Your task to perform on an android device: Go to Yahoo.com Image 0: 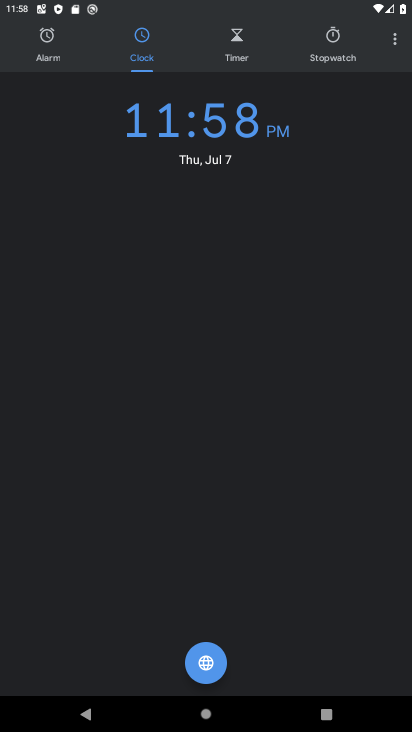
Step 0: press home button
Your task to perform on an android device: Go to Yahoo.com Image 1: 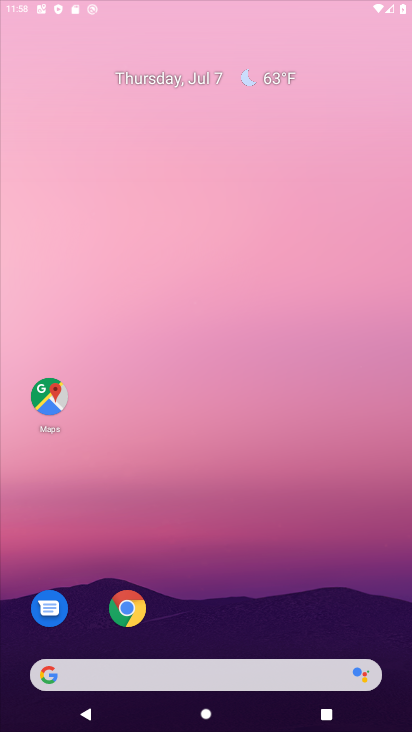
Step 1: press home button
Your task to perform on an android device: Go to Yahoo.com Image 2: 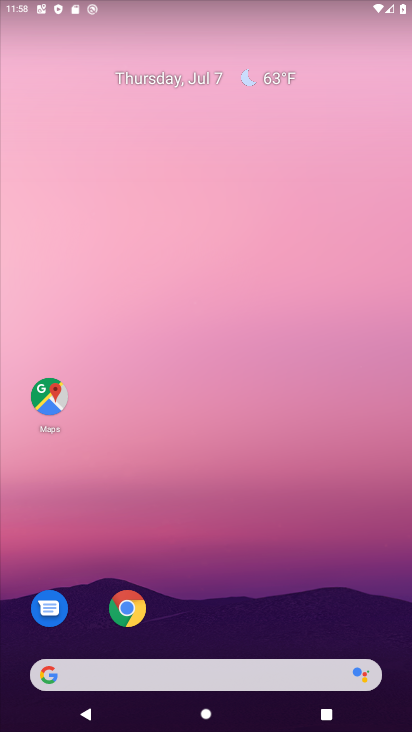
Step 2: click (129, 611)
Your task to perform on an android device: Go to Yahoo.com Image 3: 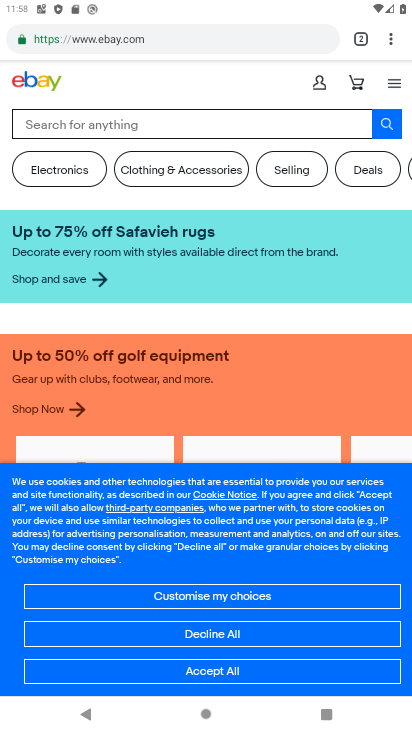
Step 3: drag from (320, 391) to (361, 303)
Your task to perform on an android device: Go to Yahoo.com Image 4: 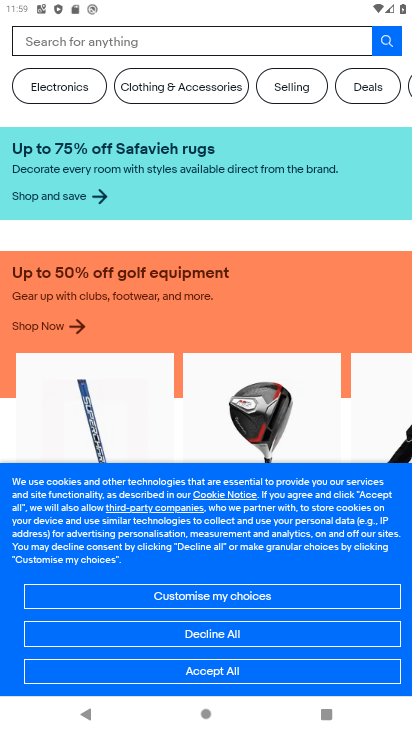
Step 4: click (56, 194)
Your task to perform on an android device: Go to Yahoo.com Image 5: 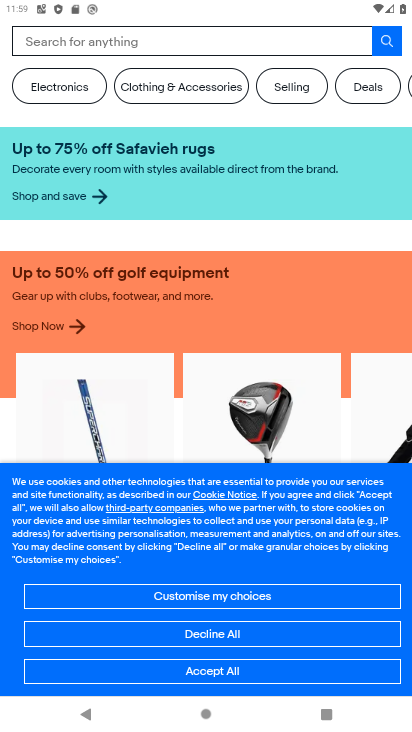
Step 5: click (51, 254)
Your task to perform on an android device: Go to Yahoo.com Image 6: 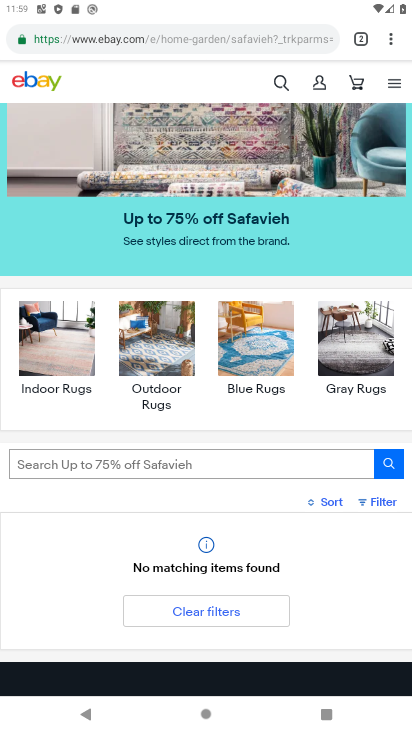
Step 6: press home button
Your task to perform on an android device: Go to Yahoo.com Image 7: 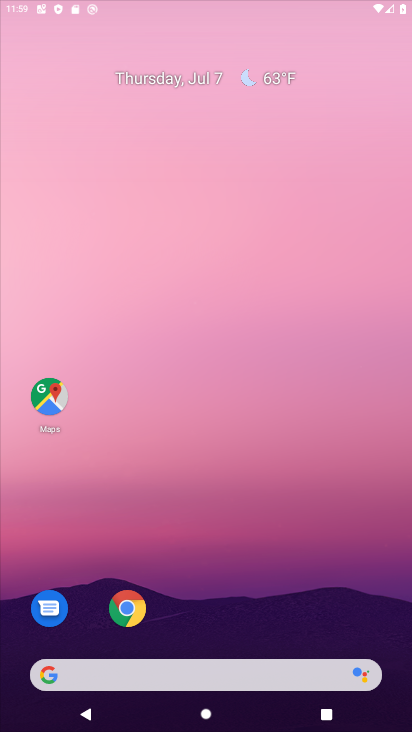
Step 7: click (330, 385)
Your task to perform on an android device: Go to Yahoo.com Image 8: 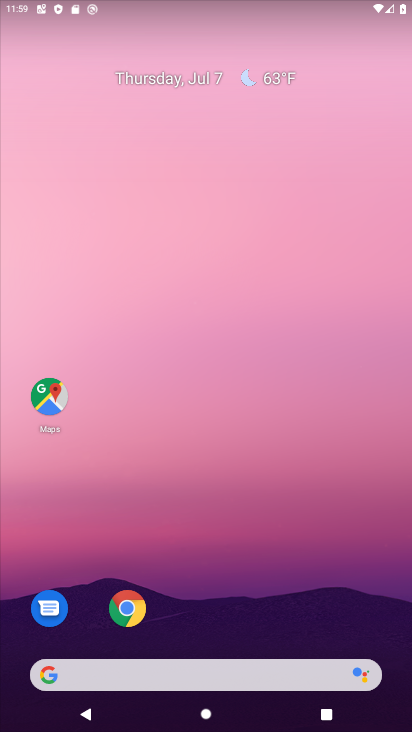
Step 8: click (129, 615)
Your task to perform on an android device: Go to Yahoo.com Image 9: 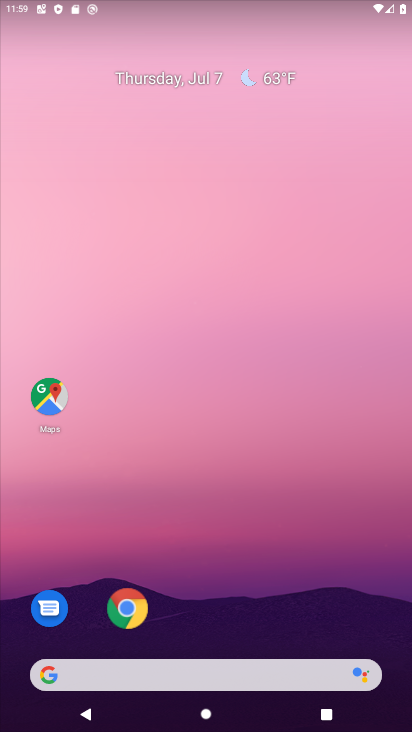
Step 9: click (175, 563)
Your task to perform on an android device: Go to Yahoo.com Image 10: 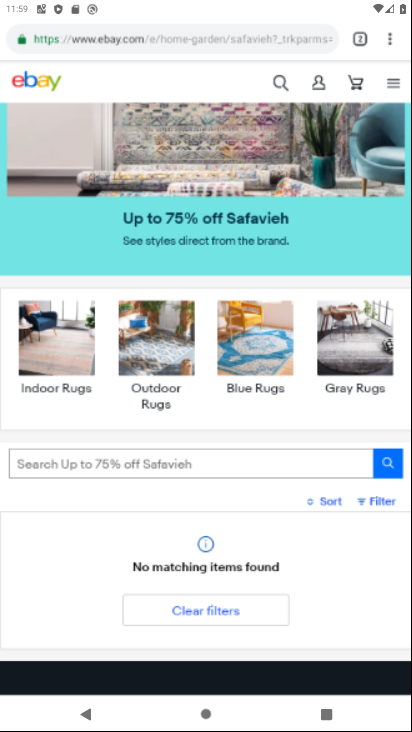
Step 10: drag from (320, 245) to (339, 172)
Your task to perform on an android device: Go to Yahoo.com Image 11: 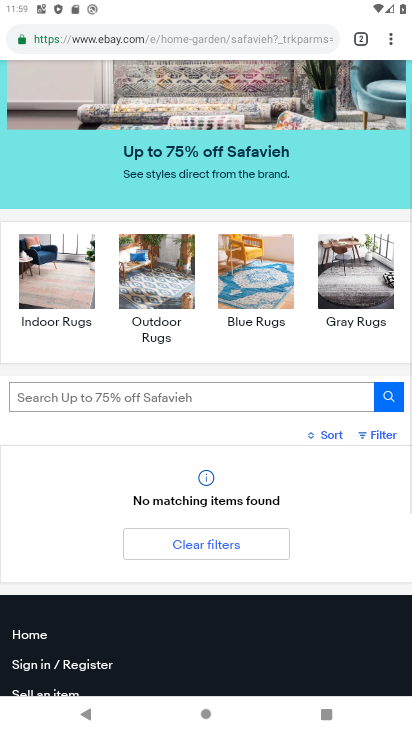
Step 11: click (356, 42)
Your task to perform on an android device: Go to Yahoo.com Image 12: 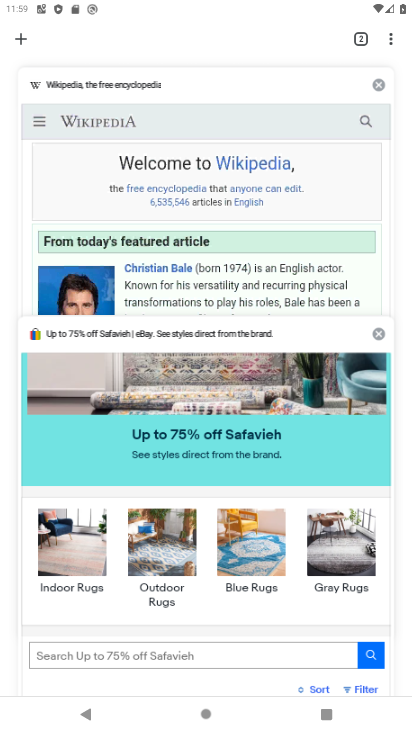
Step 12: click (376, 85)
Your task to perform on an android device: Go to Yahoo.com Image 13: 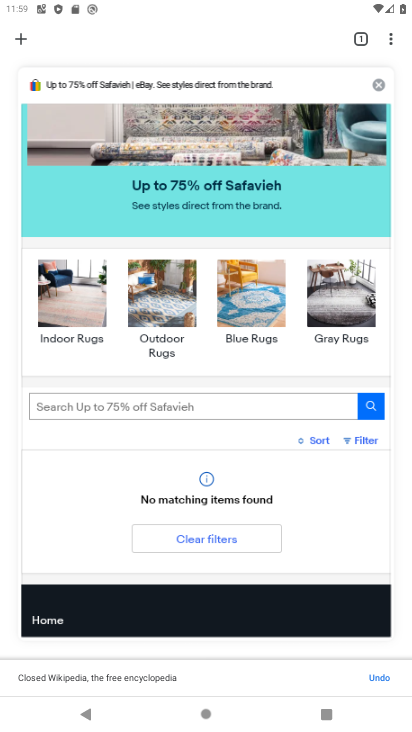
Step 13: click (376, 85)
Your task to perform on an android device: Go to Yahoo.com Image 14: 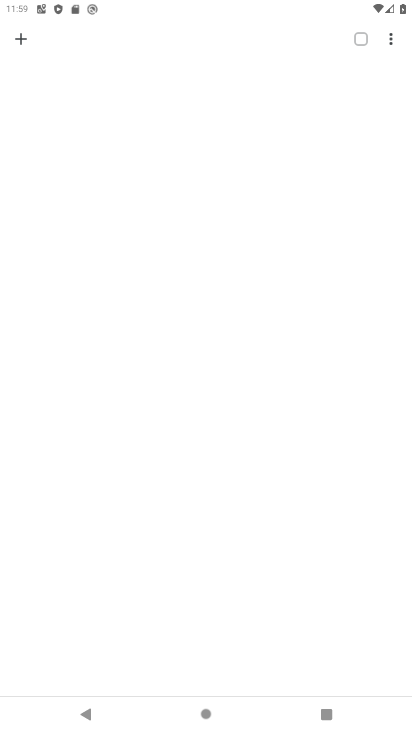
Step 14: click (20, 37)
Your task to perform on an android device: Go to Yahoo.com Image 15: 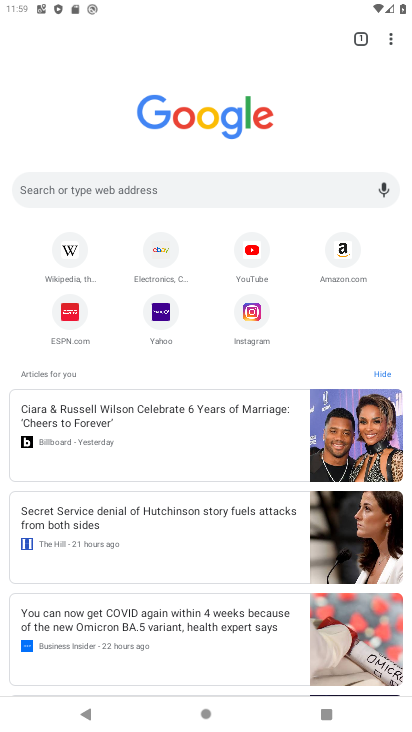
Step 15: click (165, 312)
Your task to perform on an android device: Go to Yahoo.com Image 16: 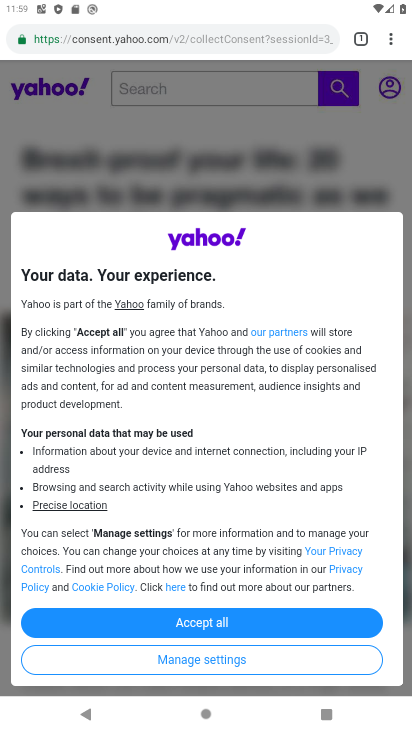
Step 16: click (267, 626)
Your task to perform on an android device: Go to Yahoo.com Image 17: 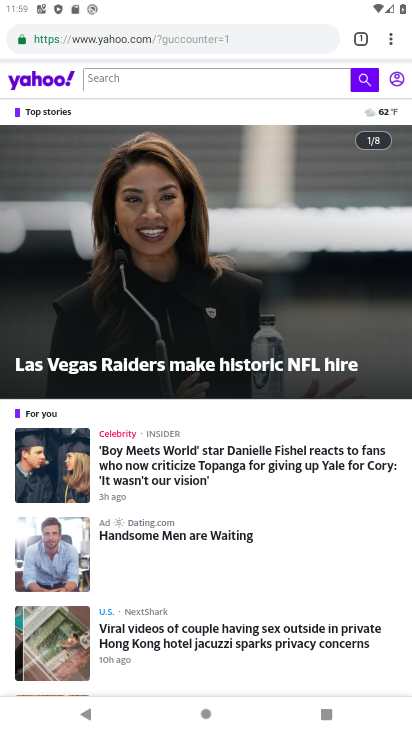
Step 17: task complete